Your task to perform on an android device: open a new tab in the chrome app Image 0: 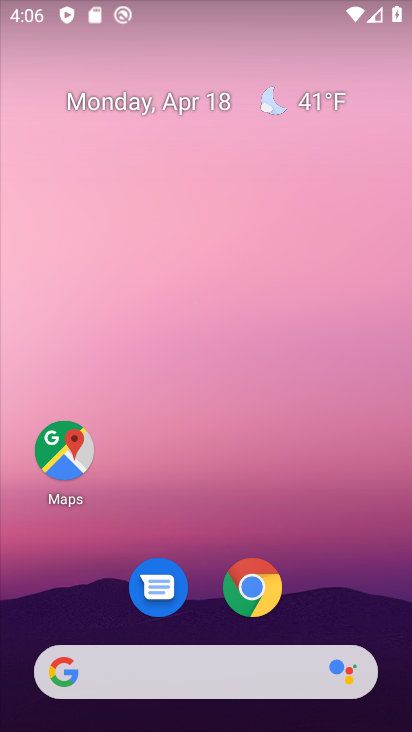
Step 0: click (255, 603)
Your task to perform on an android device: open a new tab in the chrome app Image 1: 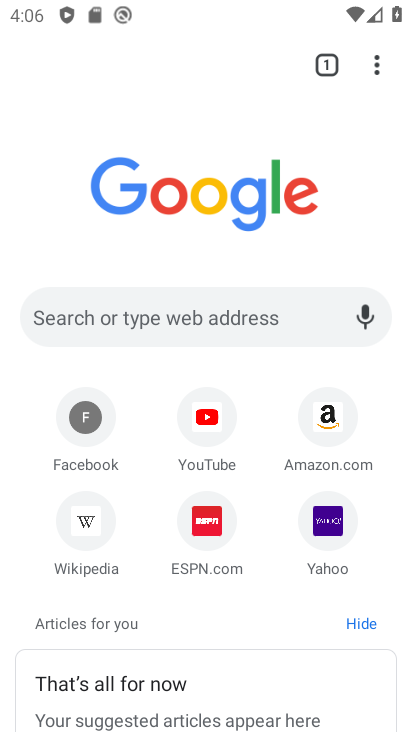
Step 1: click (390, 71)
Your task to perform on an android device: open a new tab in the chrome app Image 2: 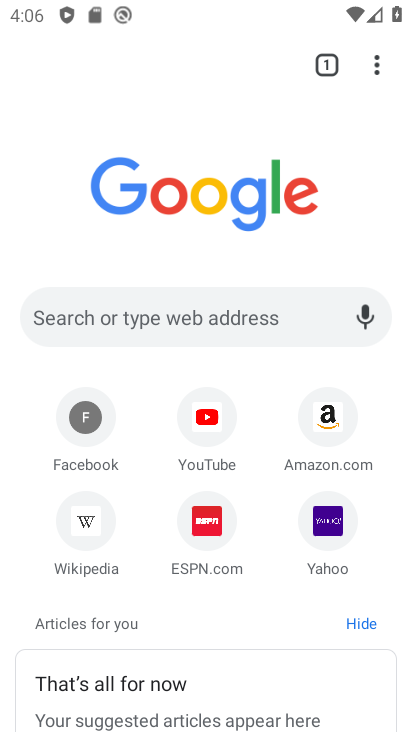
Step 2: task complete